Your task to perform on an android device: What's on the menu at Starbucks? Image 0: 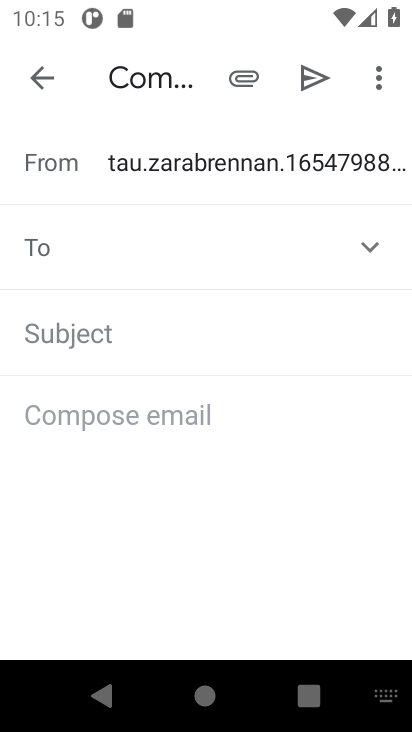
Step 0: press home button
Your task to perform on an android device: What's on the menu at Starbucks? Image 1: 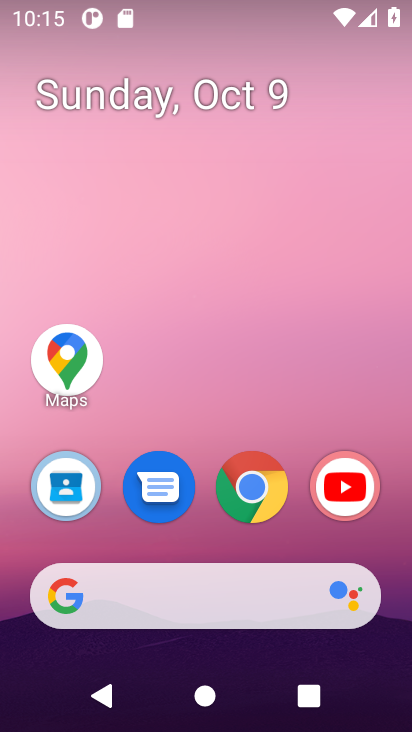
Step 1: click (257, 484)
Your task to perform on an android device: What's on the menu at Starbucks? Image 2: 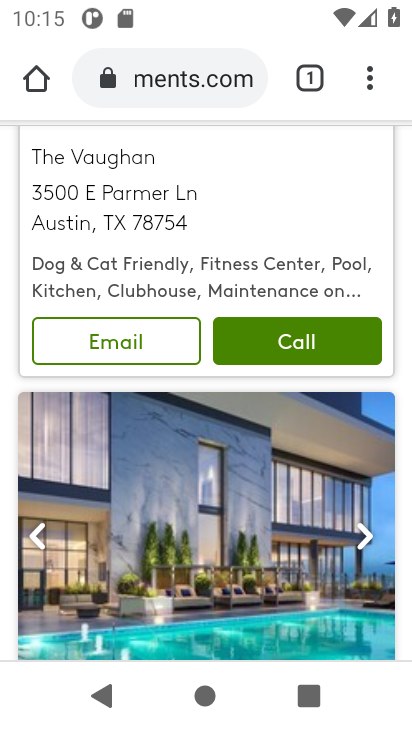
Step 2: click (200, 84)
Your task to perform on an android device: What's on the menu at Starbucks? Image 3: 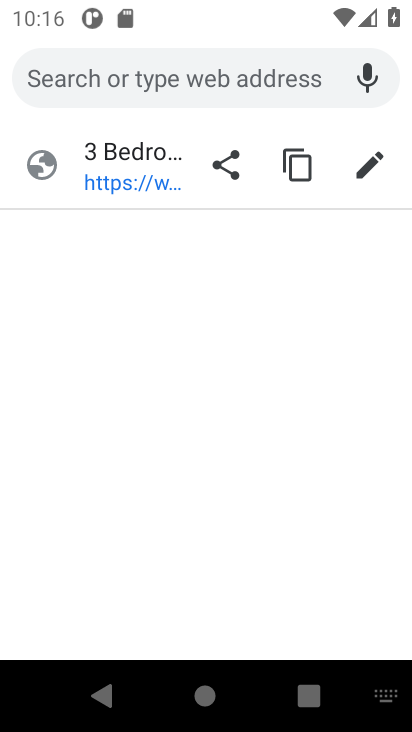
Step 3: type "menu starbucks"
Your task to perform on an android device: What's on the menu at Starbucks? Image 4: 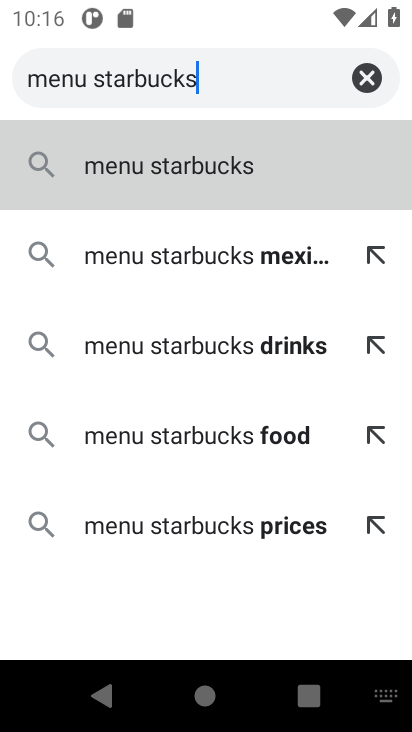
Step 4: type ""
Your task to perform on an android device: What's on the menu at Starbucks? Image 5: 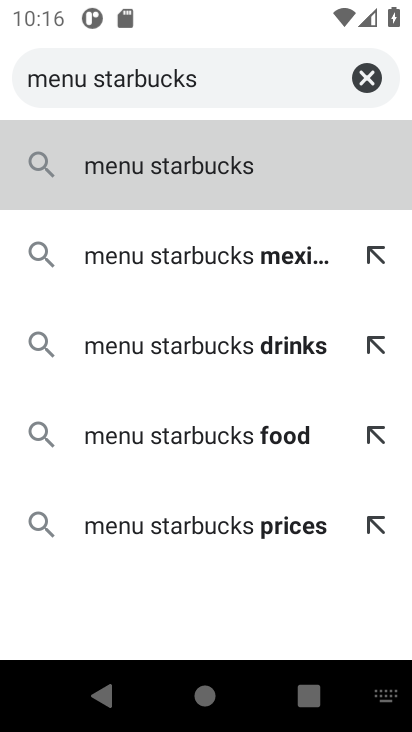
Step 5: press enter
Your task to perform on an android device: What's on the menu at Starbucks? Image 6: 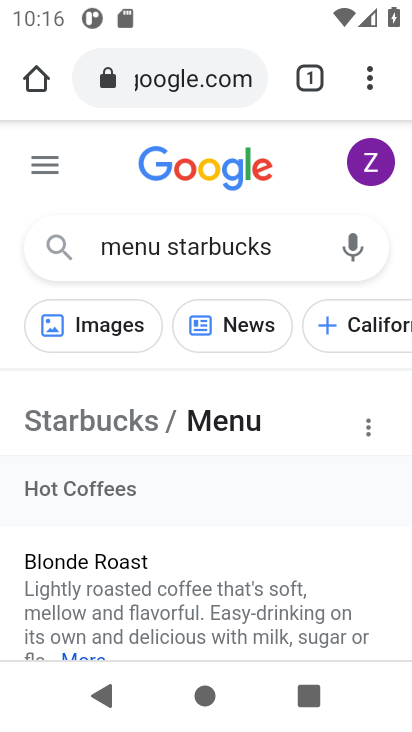
Step 6: drag from (195, 562) to (205, 171)
Your task to perform on an android device: What's on the menu at Starbucks? Image 7: 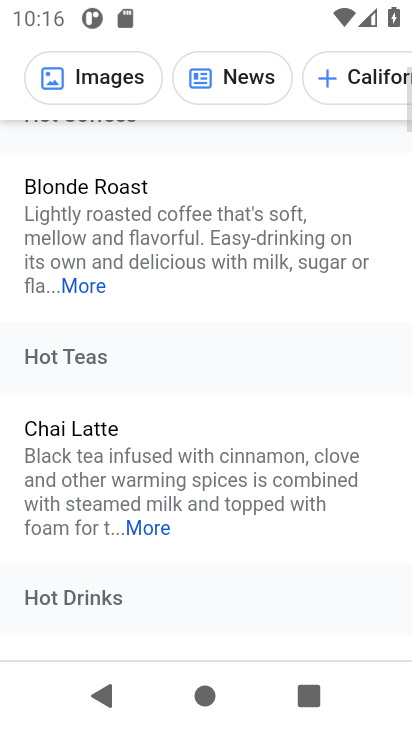
Step 7: drag from (245, 530) to (216, 182)
Your task to perform on an android device: What's on the menu at Starbucks? Image 8: 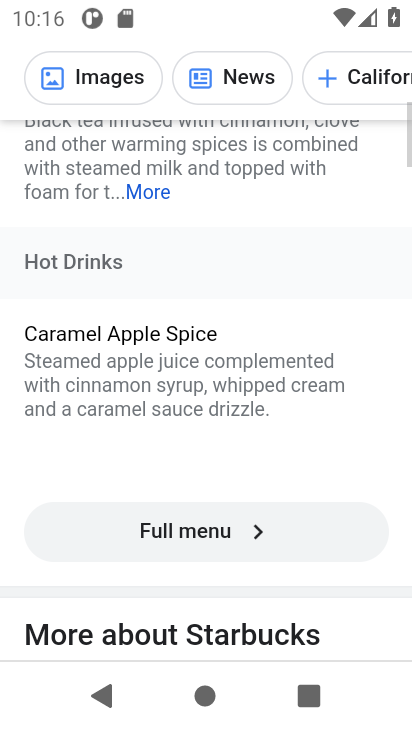
Step 8: drag from (213, 527) to (175, 198)
Your task to perform on an android device: What's on the menu at Starbucks? Image 9: 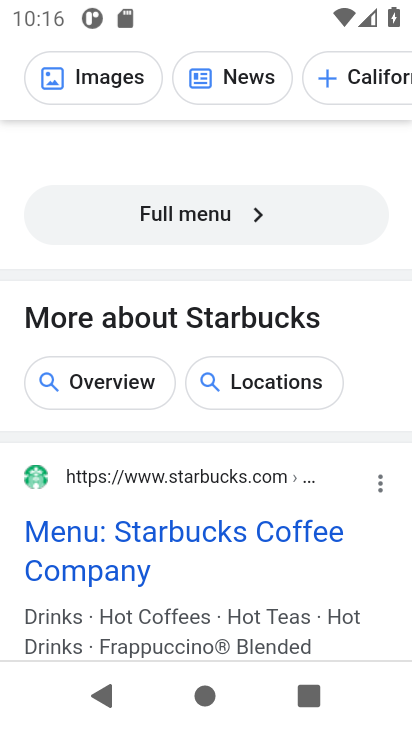
Step 9: drag from (217, 591) to (224, 335)
Your task to perform on an android device: What's on the menu at Starbucks? Image 10: 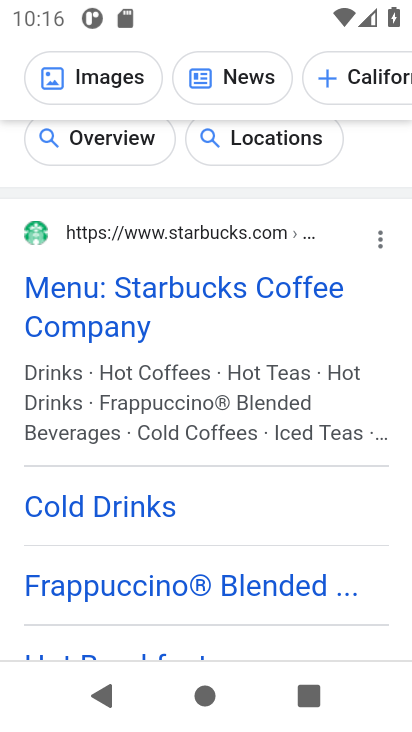
Step 10: click (114, 299)
Your task to perform on an android device: What's on the menu at Starbucks? Image 11: 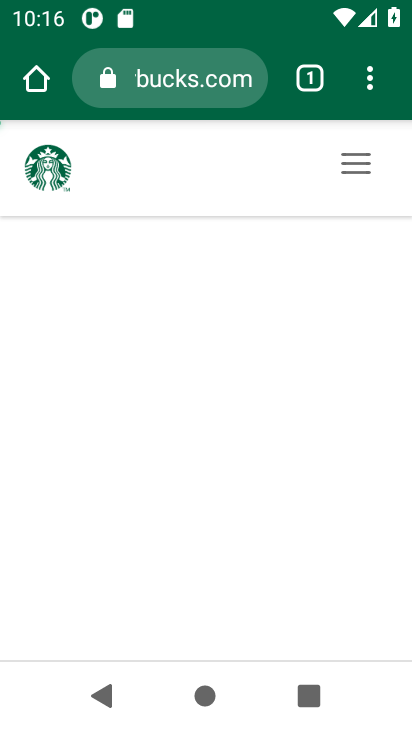
Step 11: drag from (223, 508) to (214, 352)
Your task to perform on an android device: What's on the menu at Starbucks? Image 12: 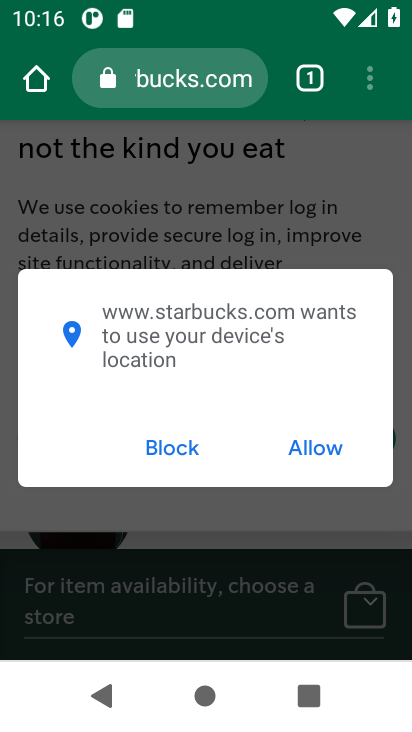
Step 12: click (308, 444)
Your task to perform on an android device: What's on the menu at Starbucks? Image 13: 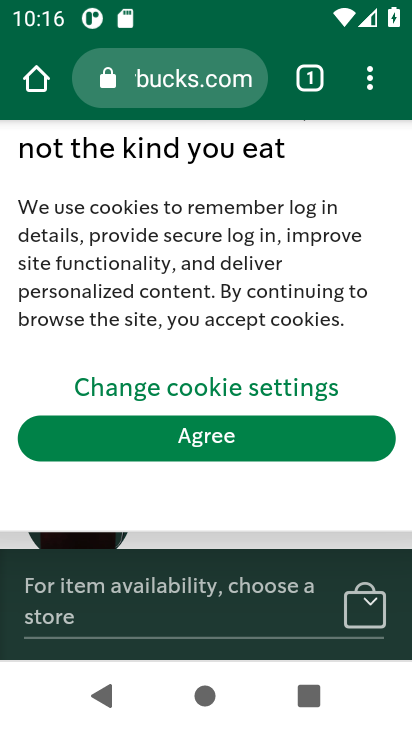
Step 13: drag from (286, 532) to (276, 220)
Your task to perform on an android device: What's on the menu at Starbucks? Image 14: 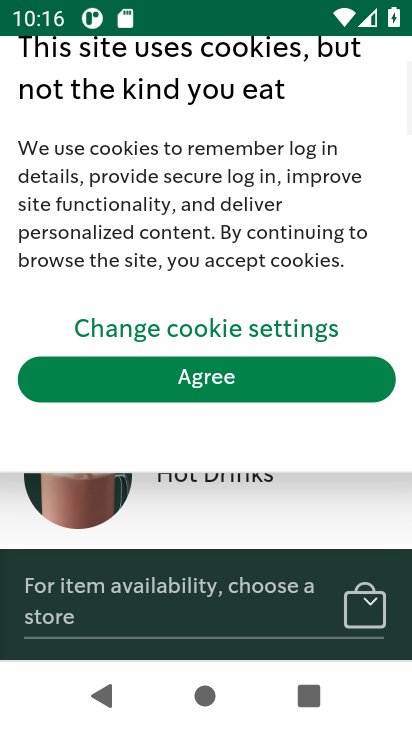
Step 14: drag from (289, 464) to (293, 337)
Your task to perform on an android device: What's on the menu at Starbucks? Image 15: 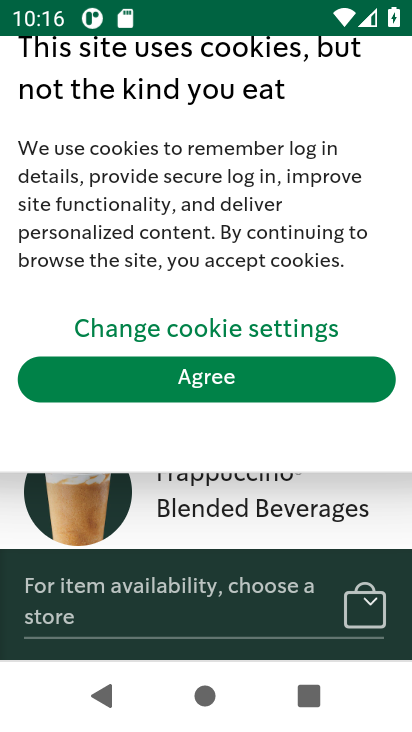
Step 15: click (271, 390)
Your task to perform on an android device: What's on the menu at Starbucks? Image 16: 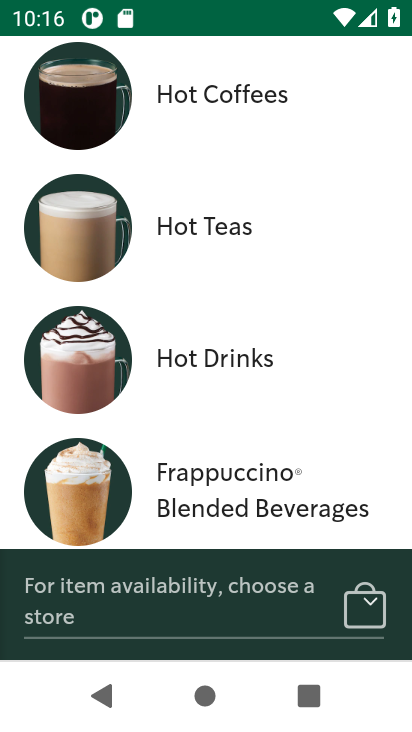
Step 16: task complete